Your task to perform on an android device: open a bookmark in the chrome app Image 0: 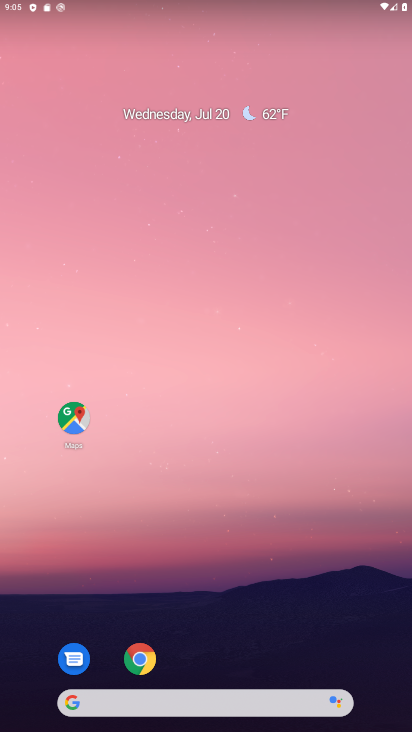
Step 0: drag from (220, 663) to (17, 385)
Your task to perform on an android device: open a bookmark in the chrome app Image 1: 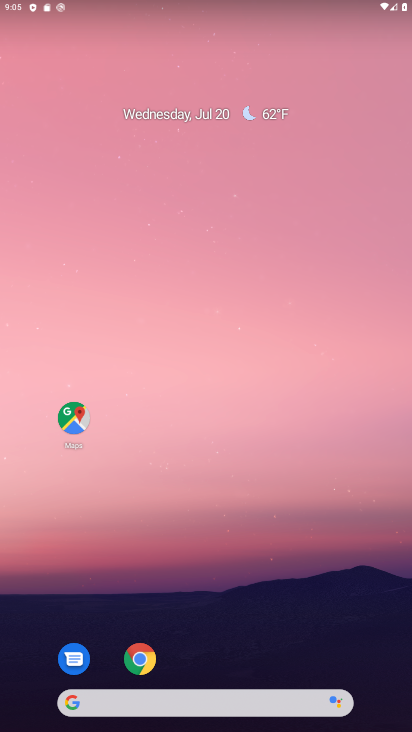
Step 1: drag from (213, 670) to (318, 35)
Your task to perform on an android device: open a bookmark in the chrome app Image 2: 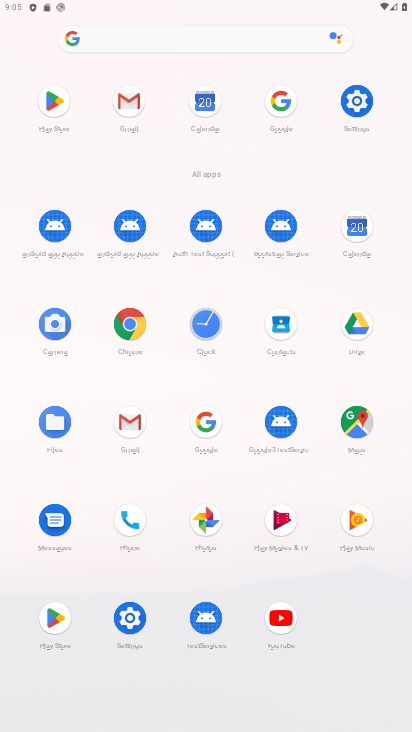
Step 2: click (124, 337)
Your task to perform on an android device: open a bookmark in the chrome app Image 3: 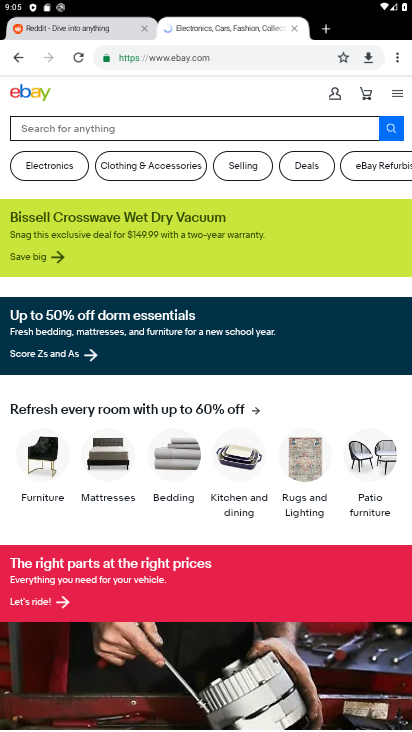
Step 3: click (395, 59)
Your task to perform on an android device: open a bookmark in the chrome app Image 4: 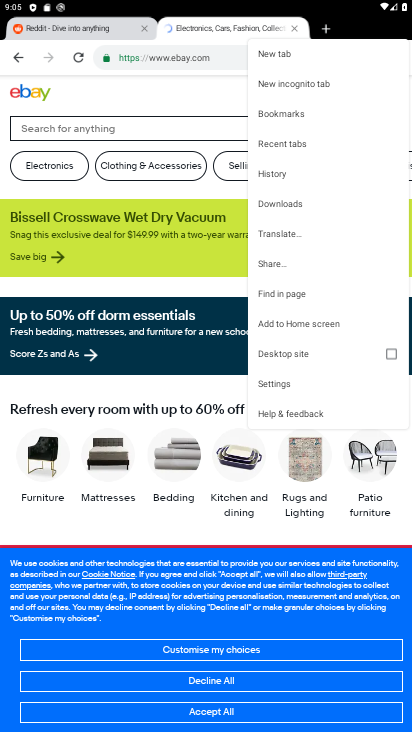
Step 4: click (283, 109)
Your task to perform on an android device: open a bookmark in the chrome app Image 5: 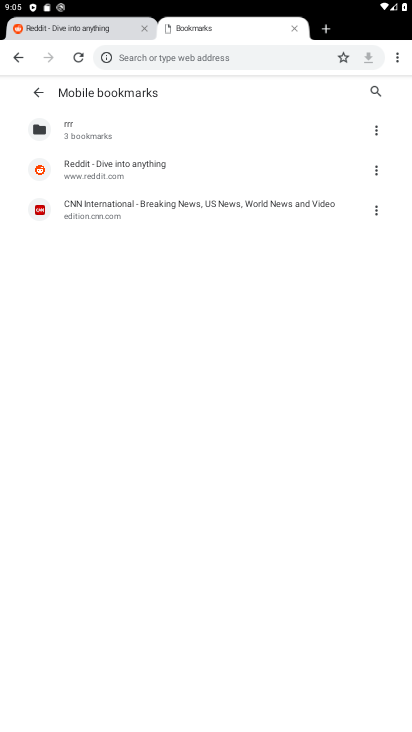
Step 5: task complete